Your task to perform on an android device: Go to privacy settings Image 0: 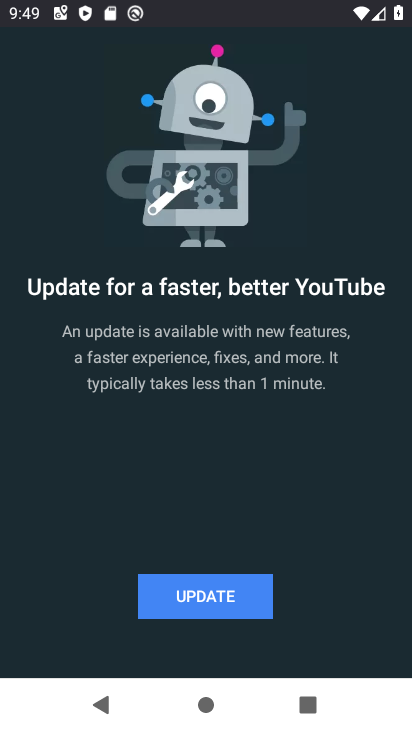
Step 0: press back button
Your task to perform on an android device: Go to privacy settings Image 1: 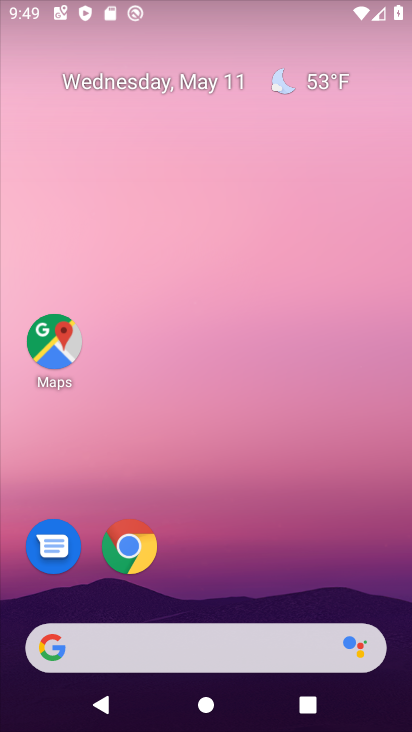
Step 1: drag from (400, 624) to (293, 42)
Your task to perform on an android device: Go to privacy settings Image 2: 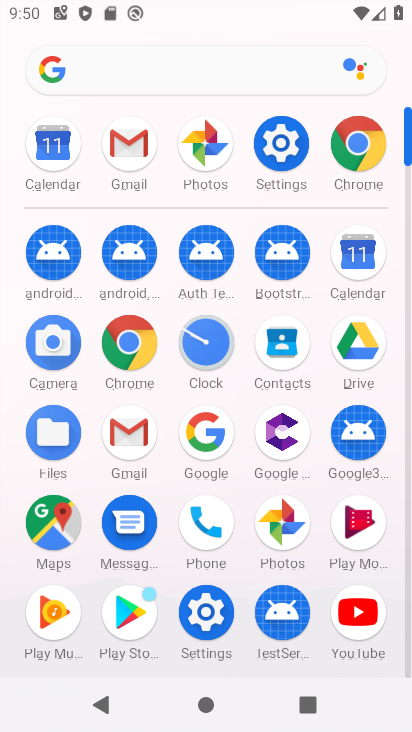
Step 2: click (214, 601)
Your task to perform on an android device: Go to privacy settings Image 3: 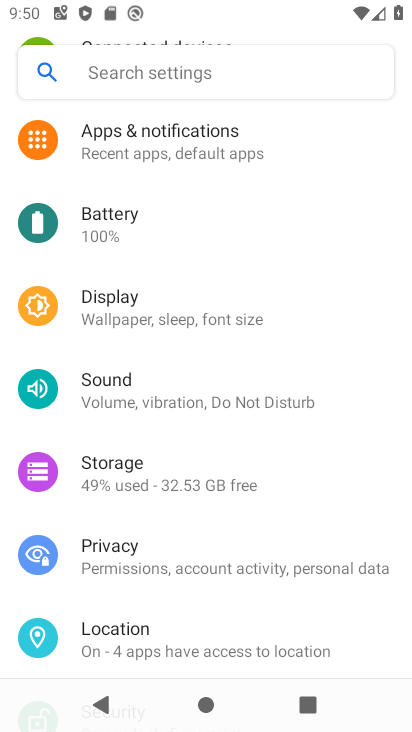
Step 3: click (158, 573)
Your task to perform on an android device: Go to privacy settings Image 4: 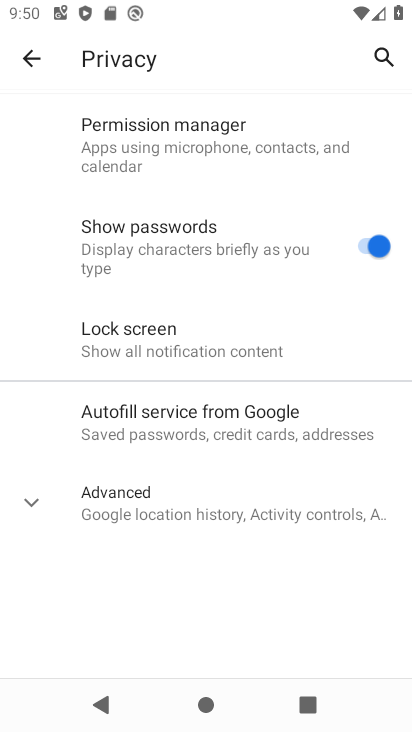
Step 4: task complete